Your task to perform on an android device: turn notification dots on Image 0: 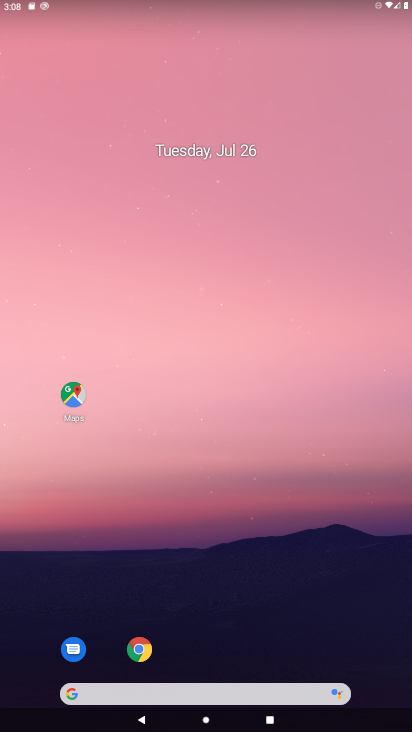
Step 0: drag from (201, 682) to (201, 190)
Your task to perform on an android device: turn notification dots on Image 1: 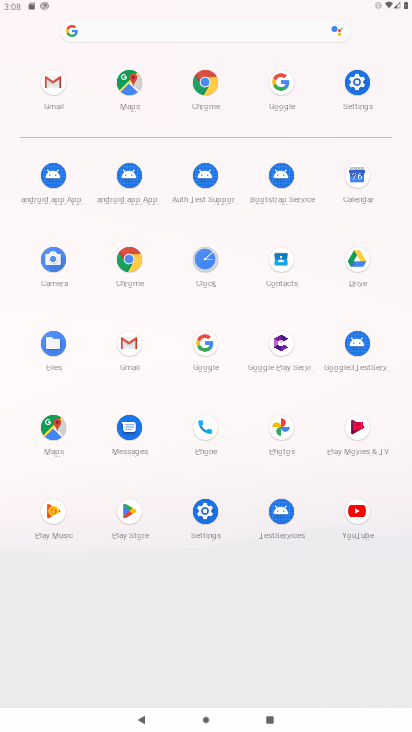
Step 1: click (200, 506)
Your task to perform on an android device: turn notification dots on Image 2: 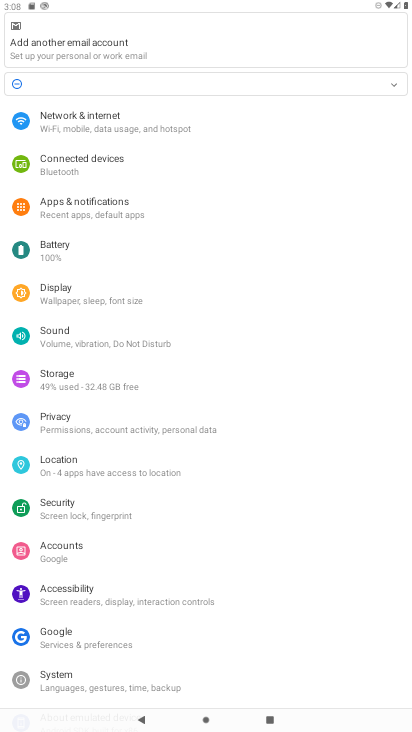
Step 2: click (112, 212)
Your task to perform on an android device: turn notification dots on Image 3: 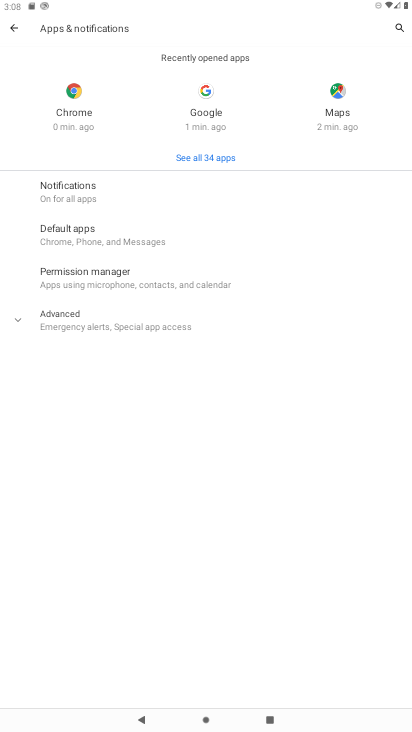
Step 3: click (107, 198)
Your task to perform on an android device: turn notification dots on Image 4: 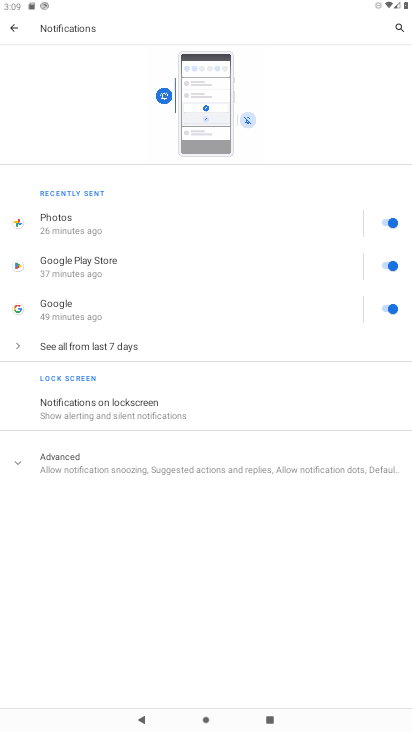
Step 4: click (128, 451)
Your task to perform on an android device: turn notification dots on Image 5: 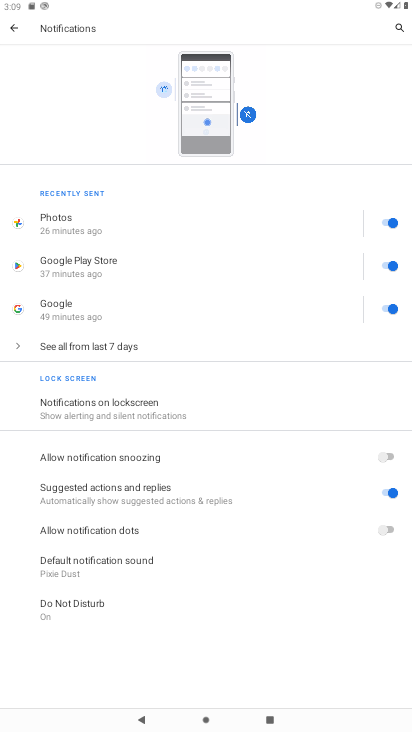
Step 5: click (387, 527)
Your task to perform on an android device: turn notification dots on Image 6: 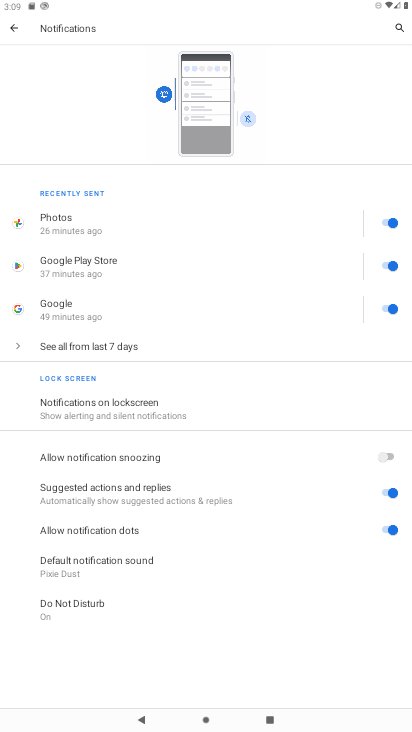
Step 6: task complete